Your task to perform on an android device: Go to sound settings Image 0: 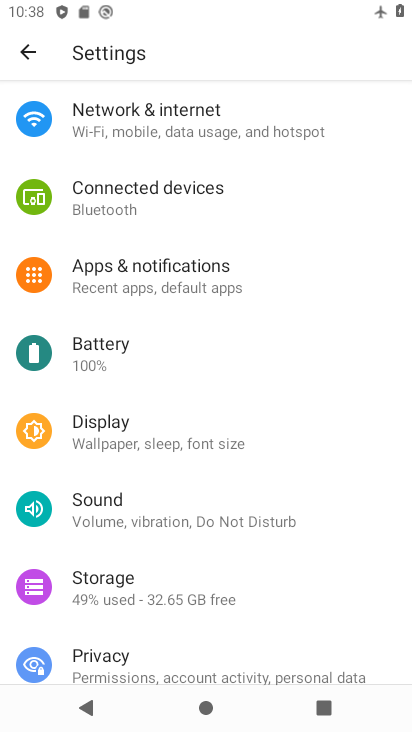
Step 0: click (169, 497)
Your task to perform on an android device: Go to sound settings Image 1: 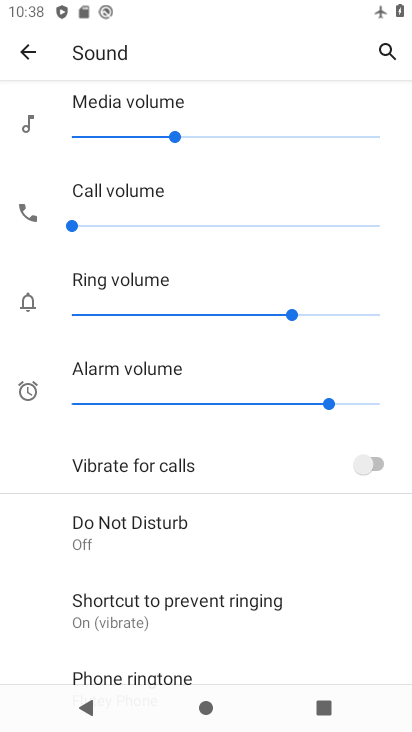
Step 1: task complete